Your task to perform on an android device: turn on airplane mode Image 0: 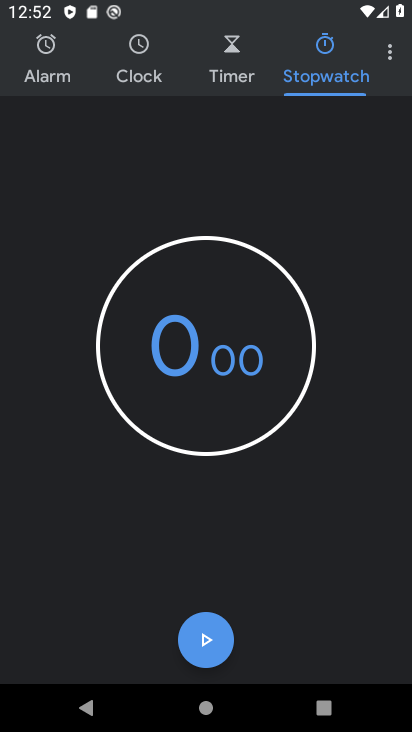
Step 0: press home button
Your task to perform on an android device: turn on airplane mode Image 1: 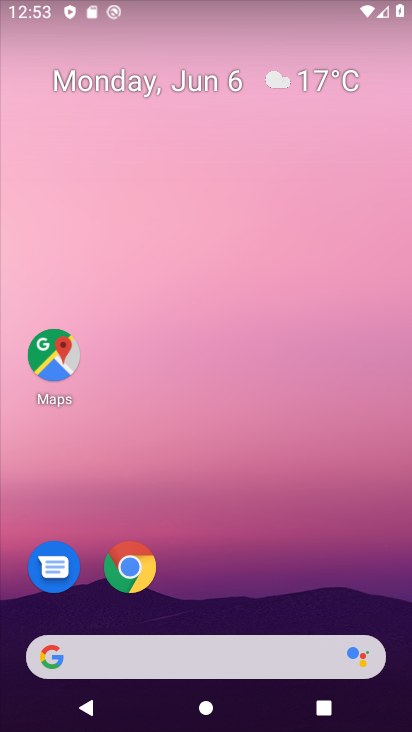
Step 1: drag from (252, 695) to (272, 5)
Your task to perform on an android device: turn on airplane mode Image 2: 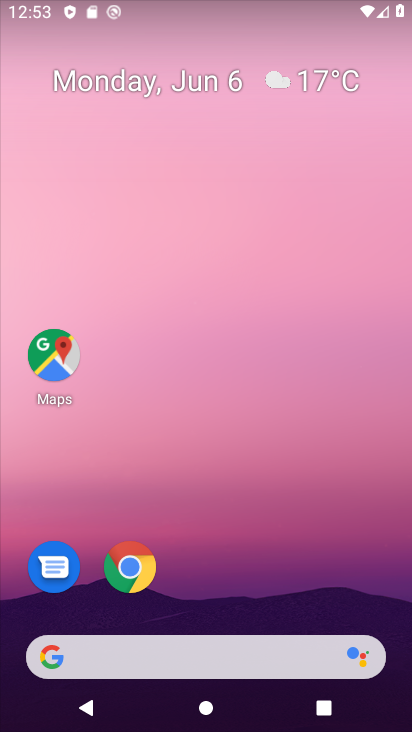
Step 2: drag from (260, 702) to (310, 1)
Your task to perform on an android device: turn on airplane mode Image 3: 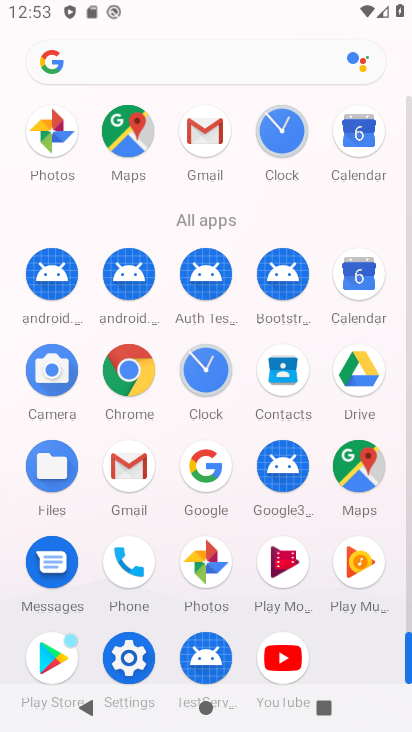
Step 3: click (133, 648)
Your task to perform on an android device: turn on airplane mode Image 4: 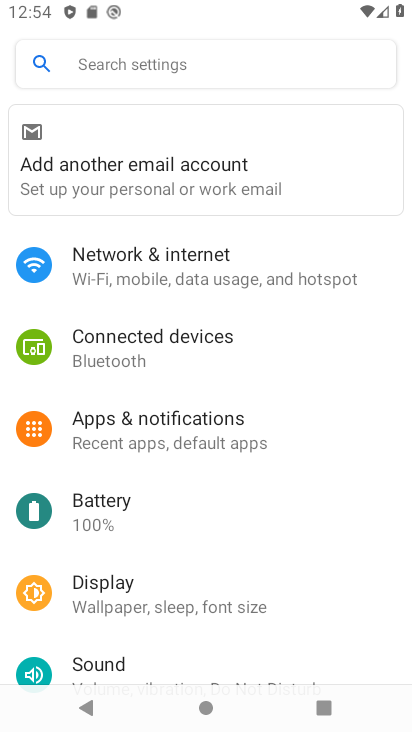
Step 4: click (316, 274)
Your task to perform on an android device: turn on airplane mode Image 5: 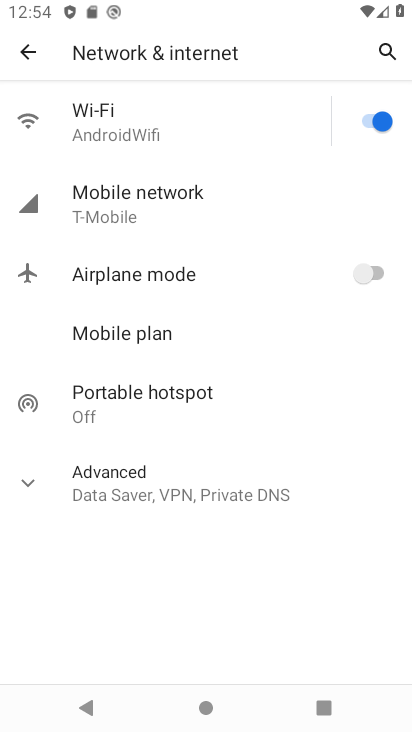
Step 5: click (365, 276)
Your task to perform on an android device: turn on airplane mode Image 6: 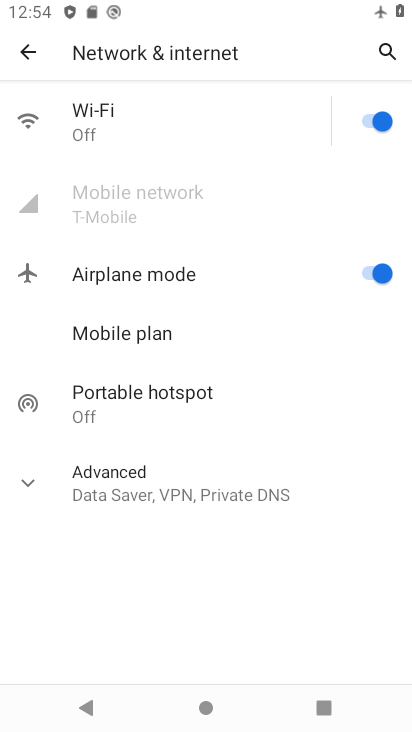
Step 6: task complete